Your task to perform on an android device: Go to calendar. Show me events next week Image 0: 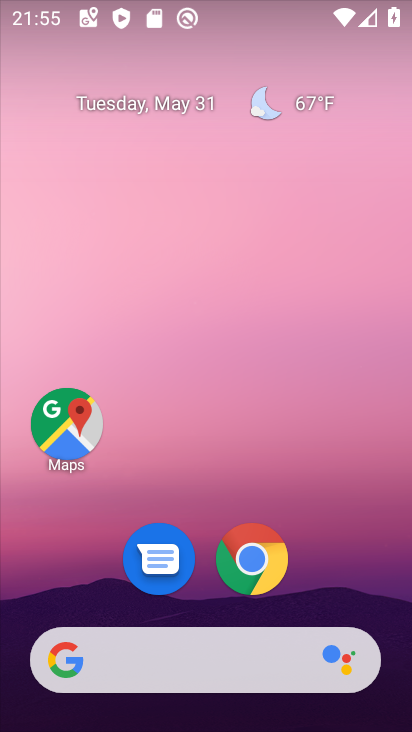
Step 0: drag from (316, 583) to (273, 43)
Your task to perform on an android device: Go to calendar. Show me events next week Image 1: 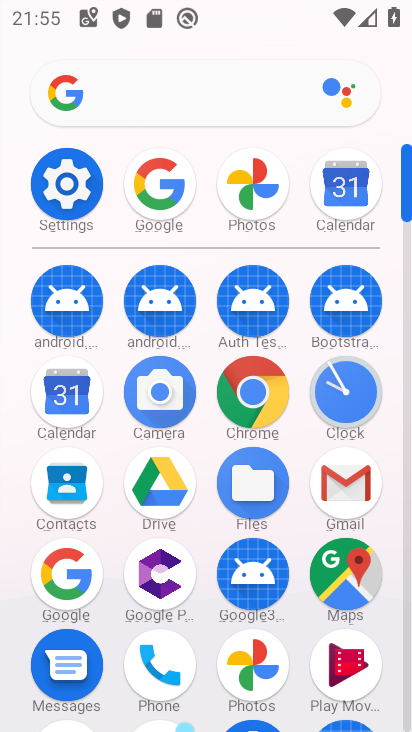
Step 1: click (347, 184)
Your task to perform on an android device: Go to calendar. Show me events next week Image 2: 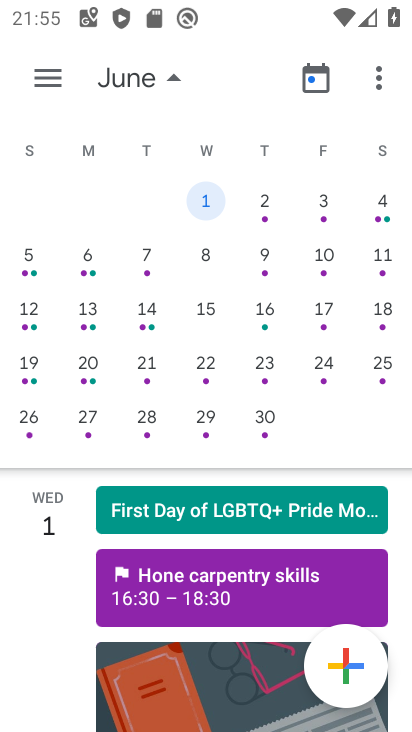
Step 2: click (145, 260)
Your task to perform on an android device: Go to calendar. Show me events next week Image 3: 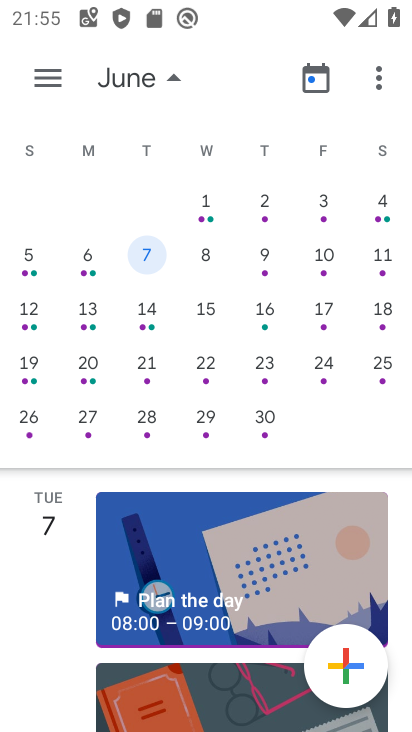
Step 3: task complete